Your task to perform on an android device: toggle javascript in the chrome app Image 0: 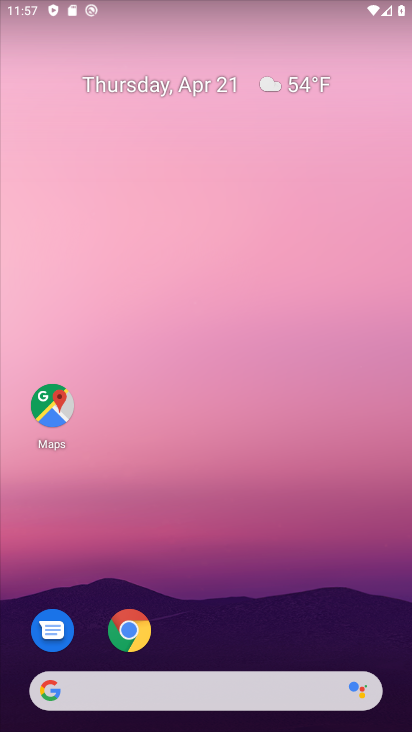
Step 0: click (128, 627)
Your task to perform on an android device: toggle javascript in the chrome app Image 1: 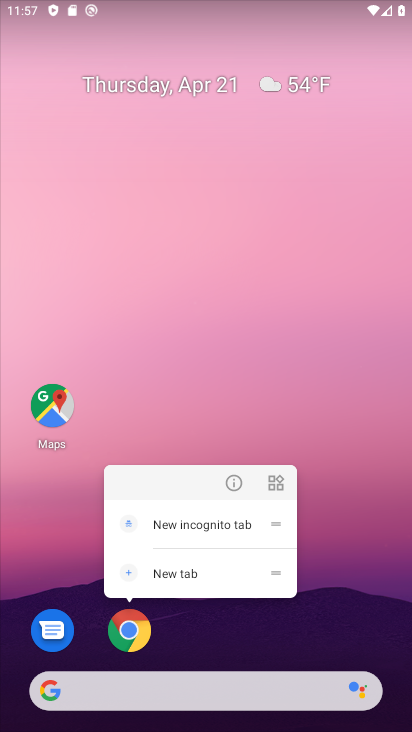
Step 1: click (134, 630)
Your task to perform on an android device: toggle javascript in the chrome app Image 2: 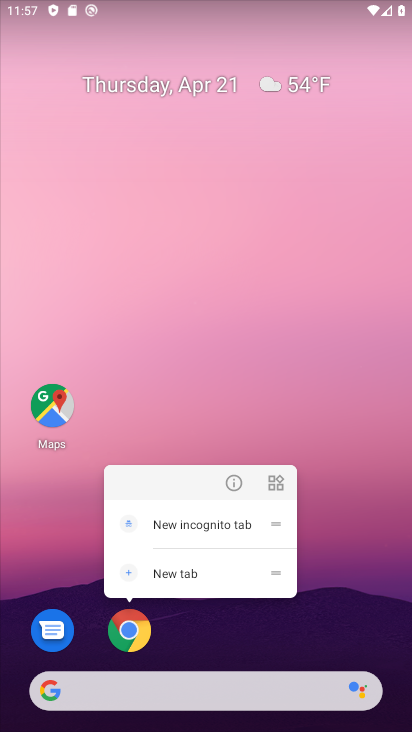
Step 2: click (134, 630)
Your task to perform on an android device: toggle javascript in the chrome app Image 3: 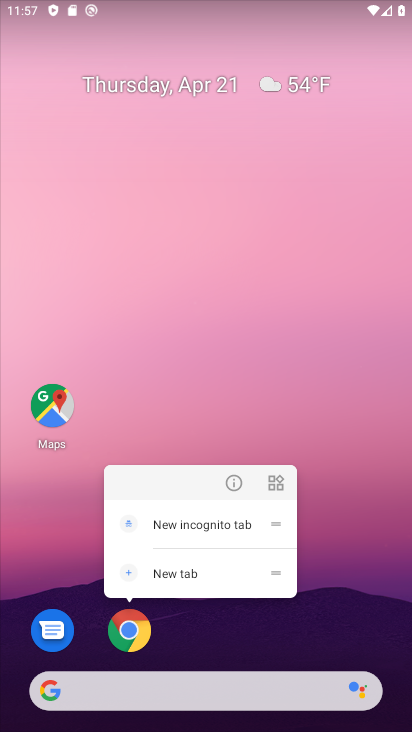
Step 3: click (134, 630)
Your task to perform on an android device: toggle javascript in the chrome app Image 4: 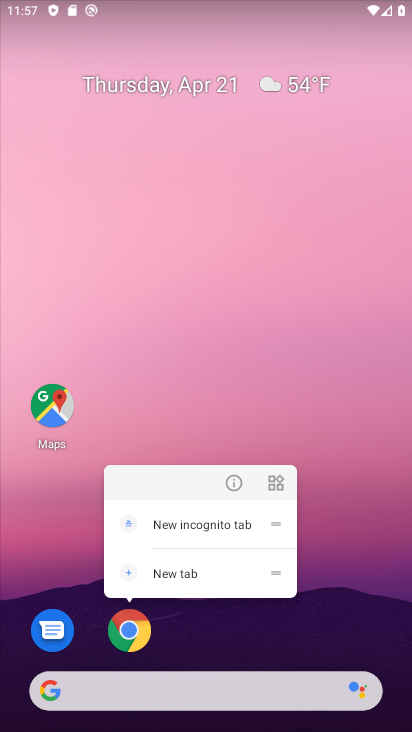
Step 4: click (127, 629)
Your task to perform on an android device: toggle javascript in the chrome app Image 5: 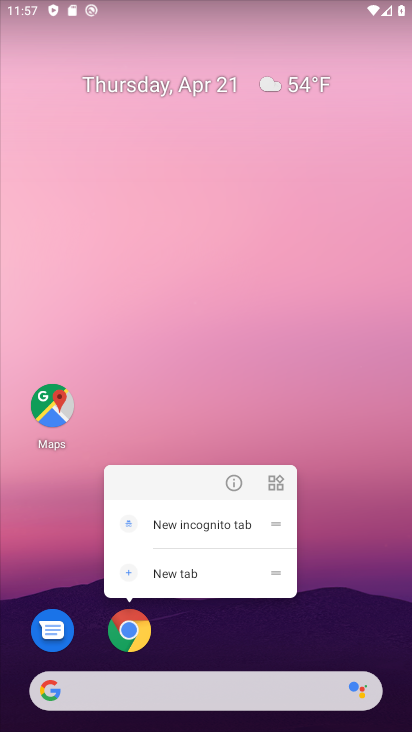
Step 5: click (127, 629)
Your task to perform on an android device: toggle javascript in the chrome app Image 6: 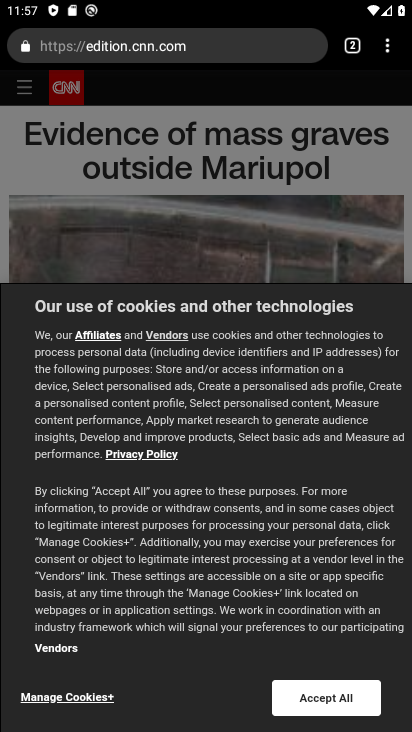
Step 6: click (389, 44)
Your task to perform on an android device: toggle javascript in the chrome app Image 7: 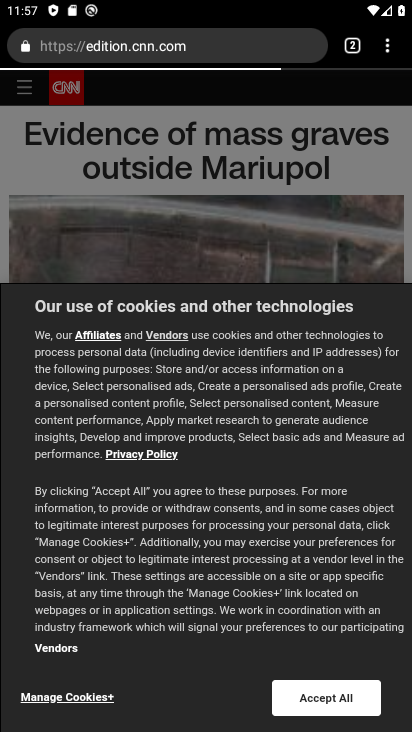
Step 7: click (389, 44)
Your task to perform on an android device: toggle javascript in the chrome app Image 8: 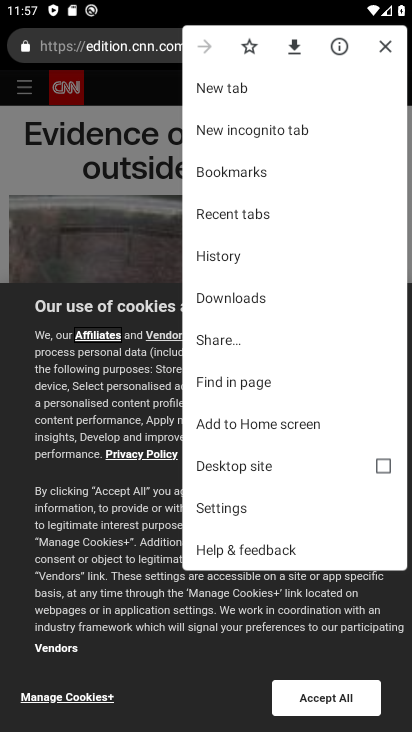
Step 8: click (223, 500)
Your task to perform on an android device: toggle javascript in the chrome app Image 9: 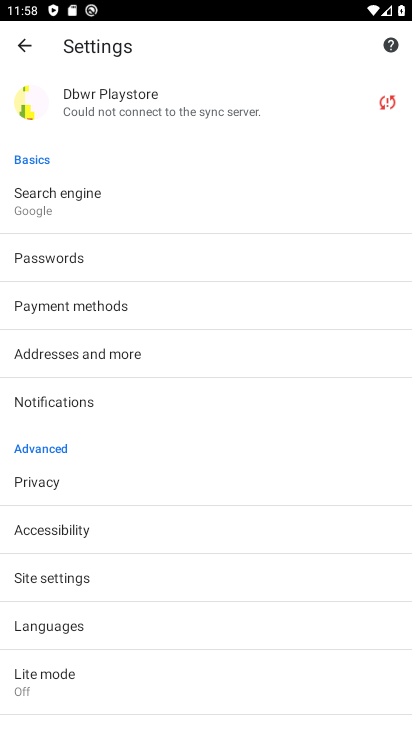
Step 9: click (36, 575)
Your task to perform on an android device: toggle javascript in the chrome app Image 10: 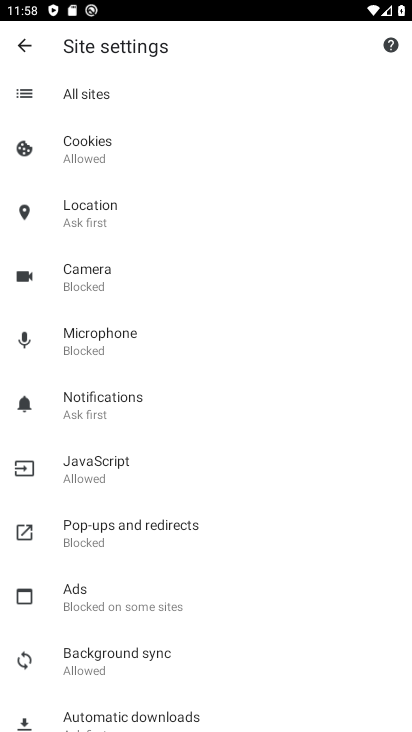
Step 10: click (103, 472)
Your task to perform on an android device: toggle javascript in the chrome app Image 11: 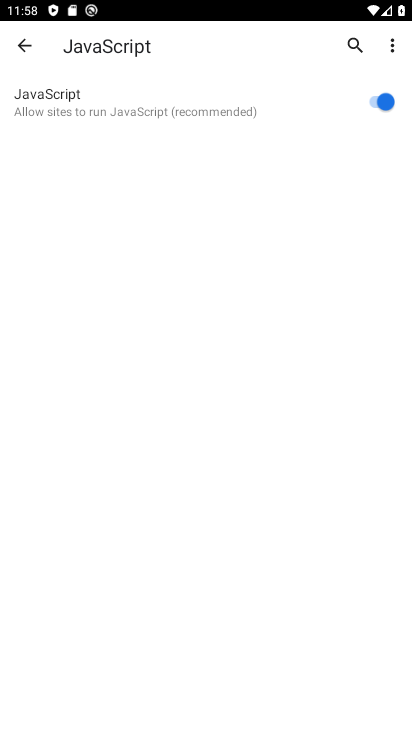
Step 11: click (371, 101)
Your task to perform on an android device: toggle javascript in the chrome app Image 12: 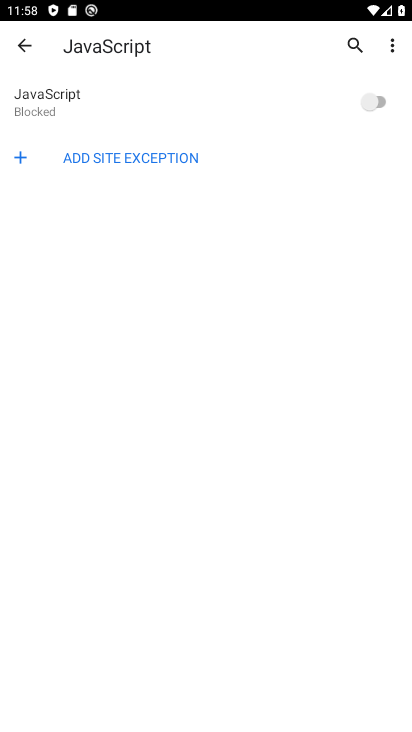
Step 12: task complete